Your task to perform on an android device: read, delete, or share a saved page in the chrome app Image 0: 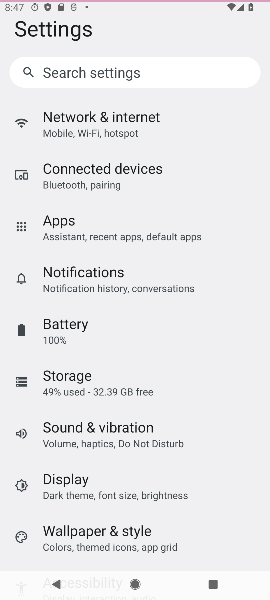
Step 0: press home button
Your task to perform on an android device: read, delete, or share a saved page in the chrome app Image 1: 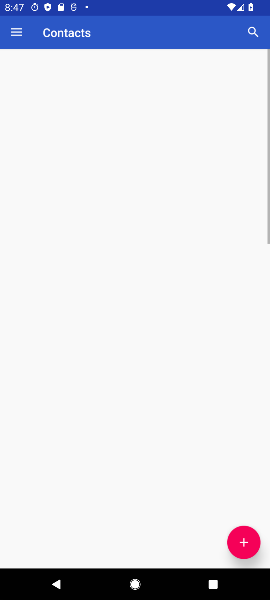
Step 1: press home button
Your task to perform on an android device: read, delete, or share a saved page in the chrome app Image 2: 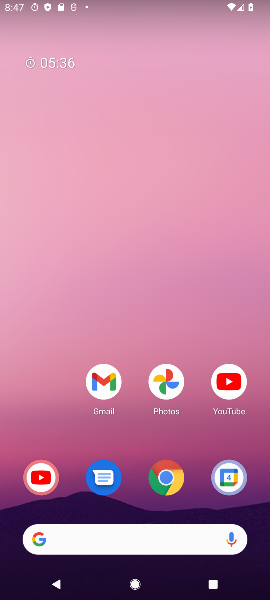
Step 2: press home button
Your task to perform on an android device: read, delete, or share a saved page in the chrome app Image 3: 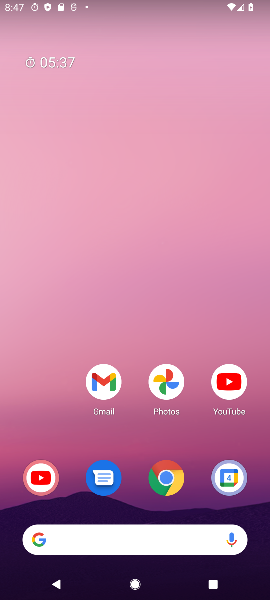
Step 3: click (160, 478)
Your task to perform on an android device: read, delete, or share a saved page in the chrome app Image 4: 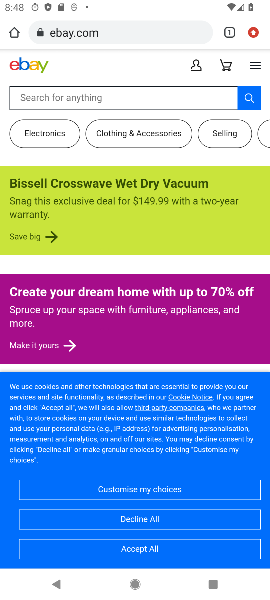
Step 4: drag from (253, 29) to (178, 197)
Your task to perform on an android device: read, delete, or share a saved page in the chrome app Image 5: 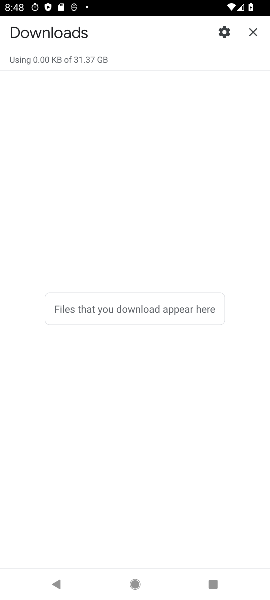
Step 5: click (93, 35)
Your task to perform on an android device: read, delete, or share a saved page in the chrome app Image 6: 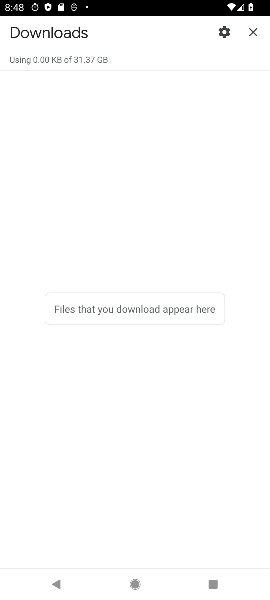
Step 6: click (59, 33)
Your task to perform on an android device: read, delete, or share a saved page in the chrome app Image 7: 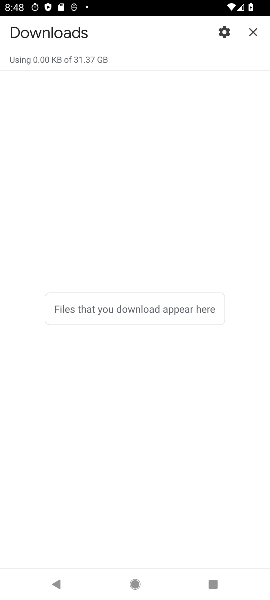
Step 7: task complete